Your task to perform on an android device: change keyboard looks Image 0: 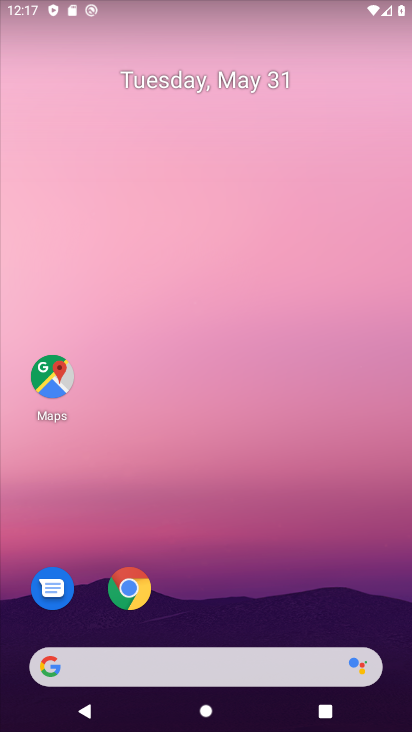
Step 0: drag from (166, 626) to (174, 71)
Your task to perform on an android device: change keyboard looks Image 1: 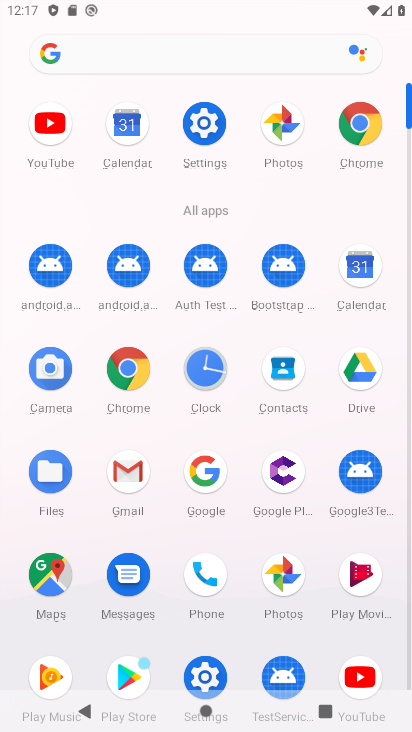
Step 1: click (193, 127)
Your task to perform on an android device: change keyboard looks Image 2: 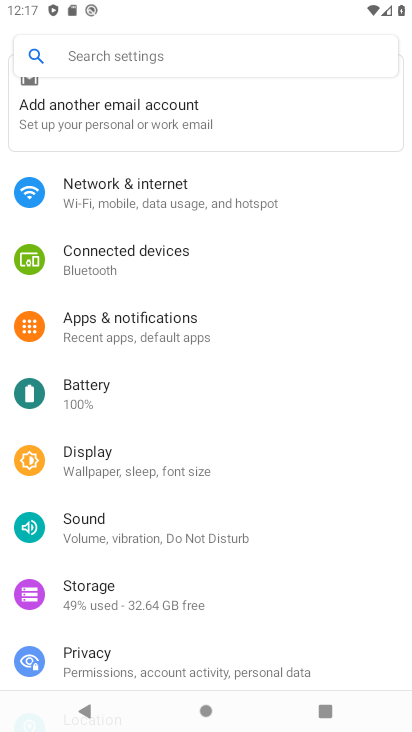
Step 2: drag from (175, 617) to (190, 206)
Your task to perform on an android device: change keyboard looks Image 3: 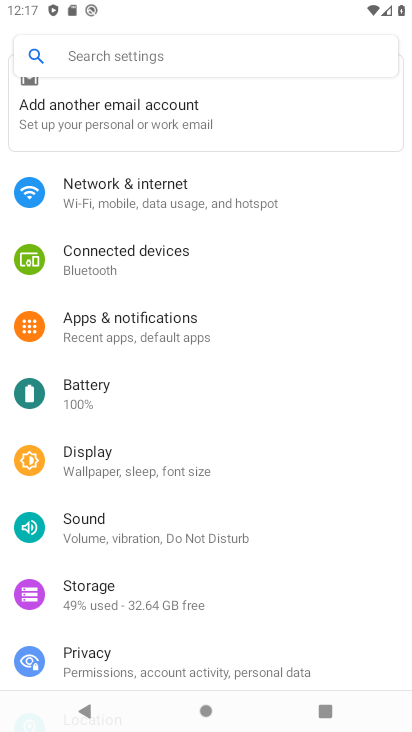
Step 3: drag from (265, 625) to (256, 149)
Your task to perform on an android device: change keyboard looks Image 4: 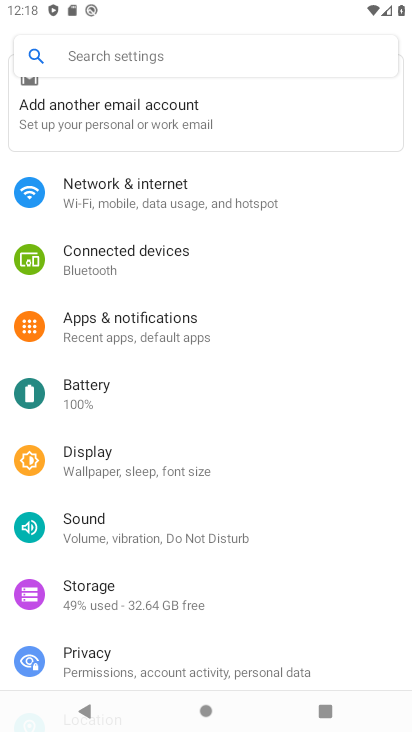
Step 4: drag from (214, 646) to (258, 174)
Your task to perform on an android device: change keyboard looks Image 5: 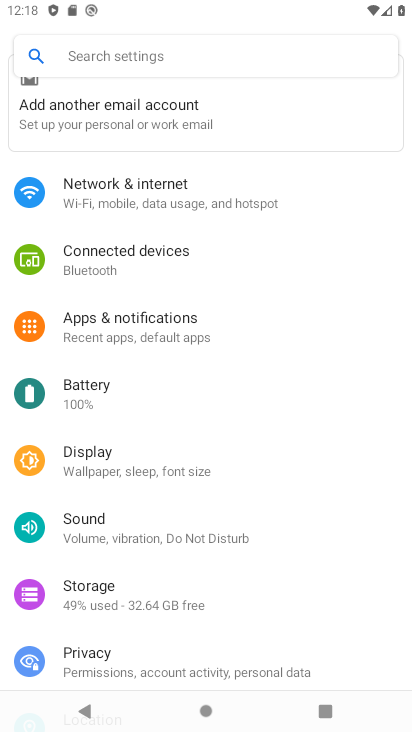
Step 5: drag from (182, 642) to (279, 101)
Your task to perform on an android device: change keyboard looks Image 6: 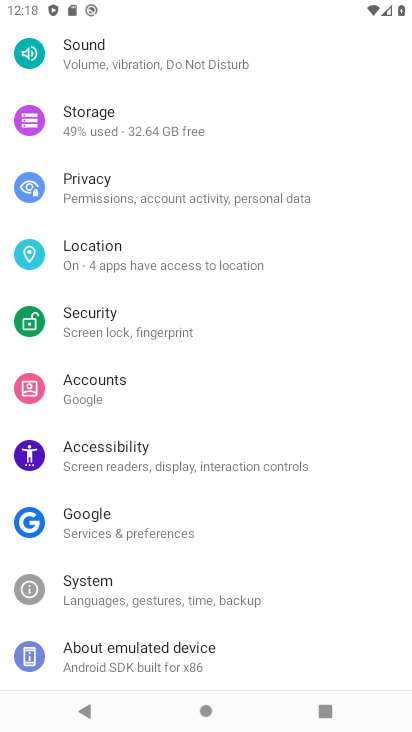
Step 6: click (134, 605)
Your task to perform on an android device: change keyboard looks Image 7: 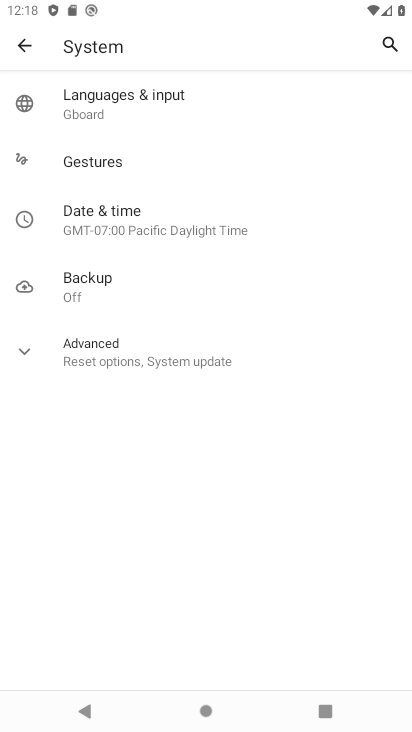
Step 7: click (120, 114)
Your task to perform on an android device: change keyboard looks Image 8: 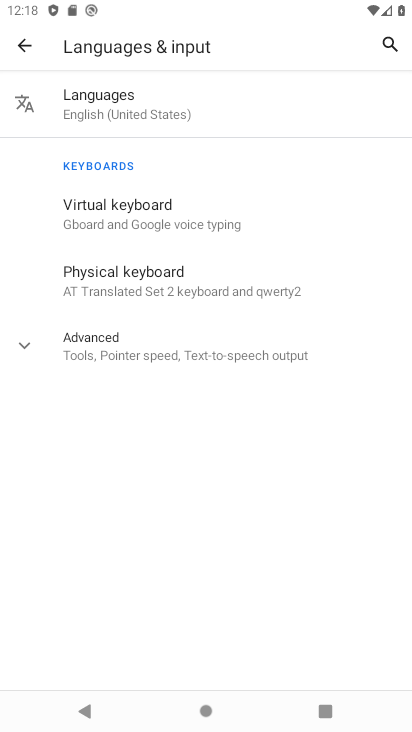
Step 8: click (134, 234)
Your task to perform on an android device: change keyboard looks Image 9: 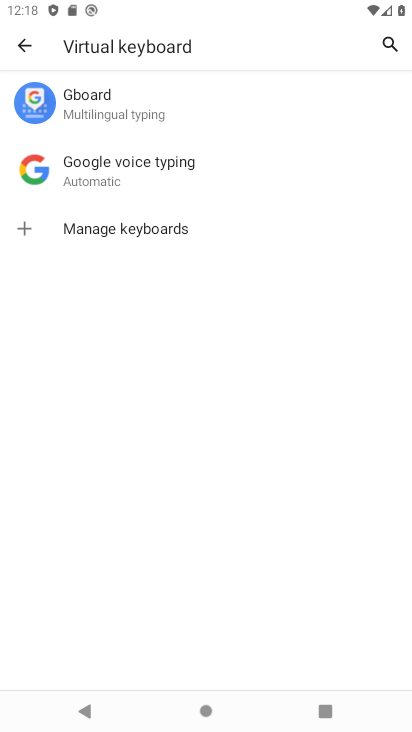
Step 9: click (117, 117)
Your task to perform on an android device: change keyboard looks Image 10: 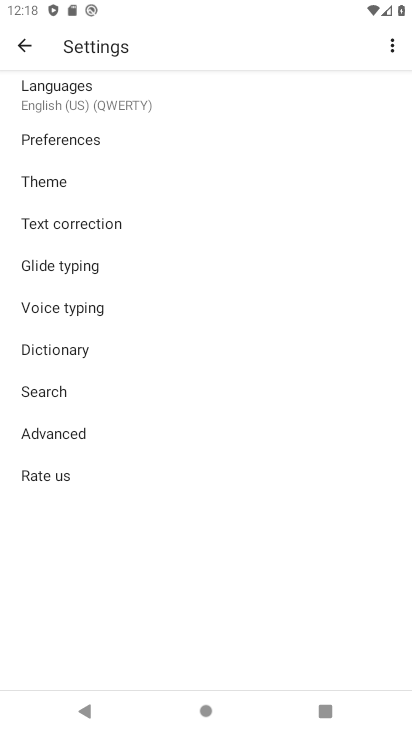
Step 10: click (51, 188)
Your task to perform on an android device: change keyboard looks Image 11: 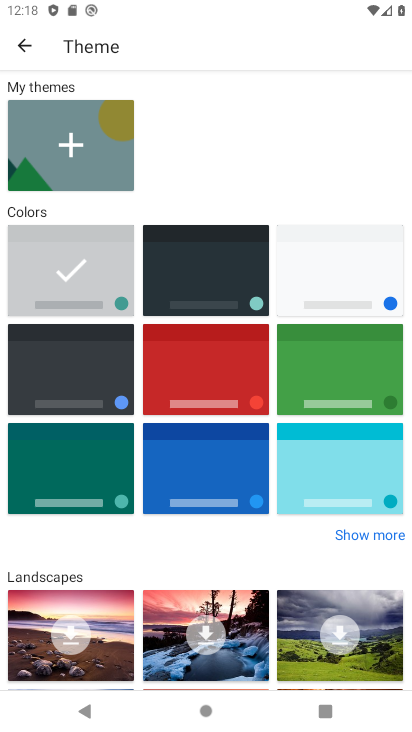
Step 11: click (186, 288)
Your task to perform on an android device: change keyboard looks Image 12: 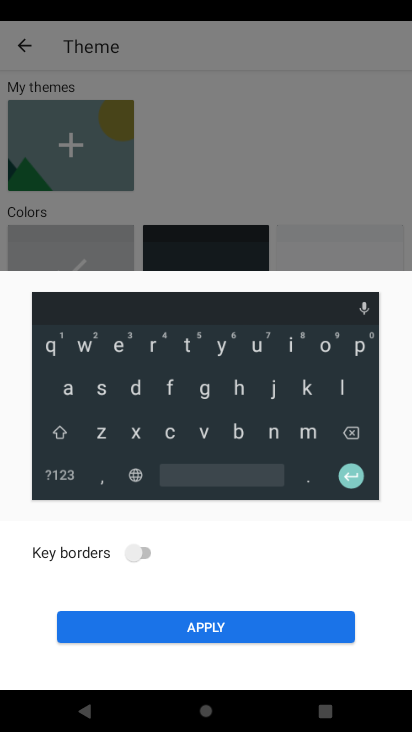
Step 12: click (303, 632)
Your task to perform on an android device: change keyboard looks Image 13: 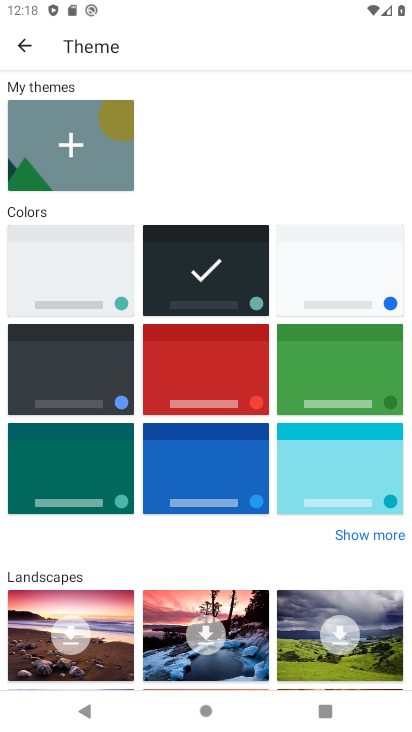
Step 13: task complete